Your task to perform on an android device: uninstall "eBay: The shopping marketplace" Image 0: 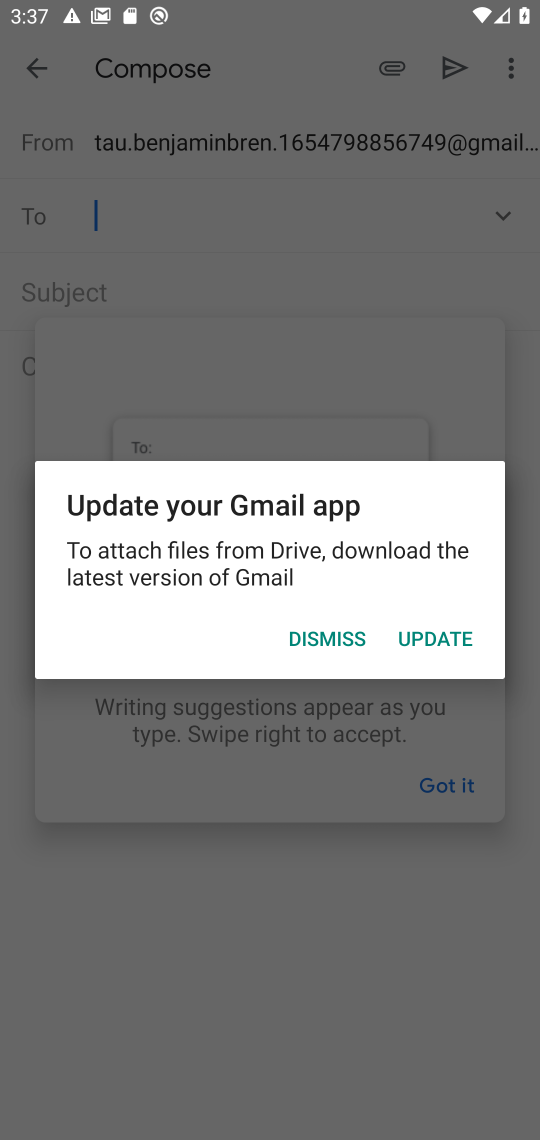
Step 0: press home button
Your task to perform on an android device: uninstall "eBay: The shopping marketplace" Image 1: 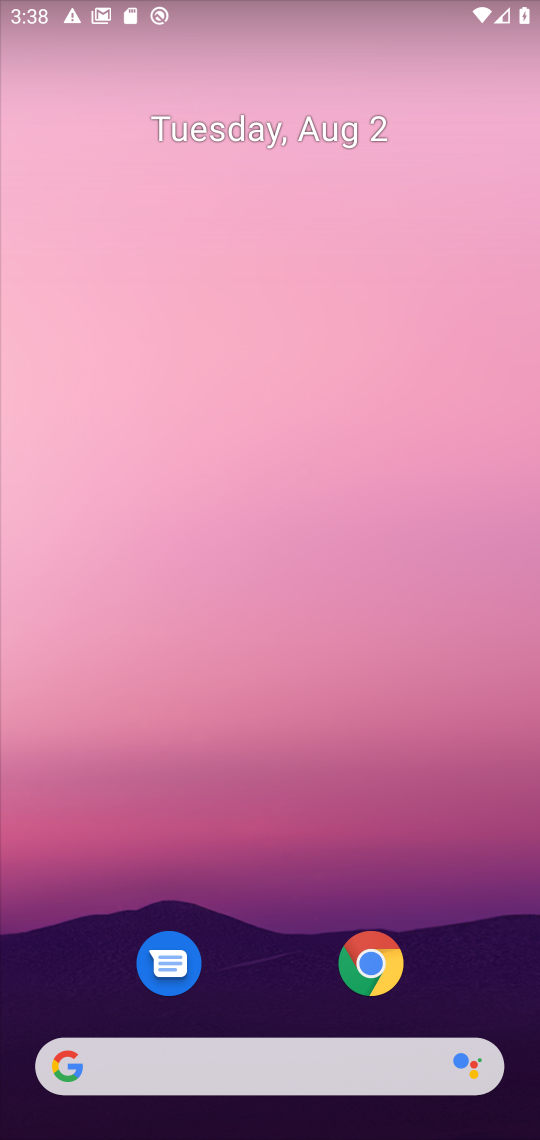
Step 1: drag from (180, 834) to (152, 158)
Your task to perform on an android device: uninstall "eBay: The shopping marketplace" Image 2: 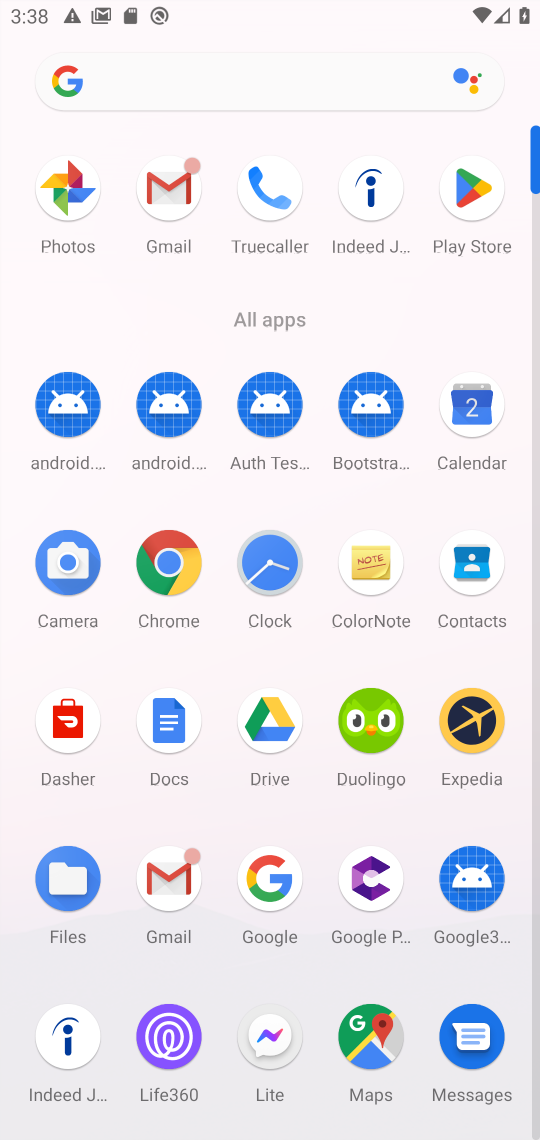
Step 2: click (450, 198)
Your task to perform on an android device: uninstall "eBay: The shopping marketplace" Image 3: 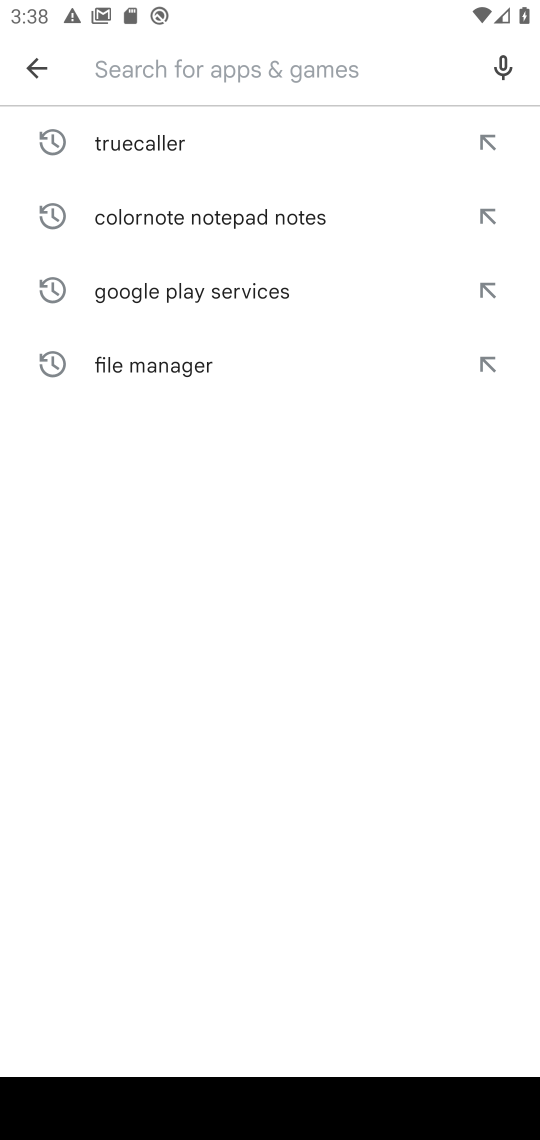
Step 3: type "eBay: The shopping marketplace"
Your task to perform on an android device: uninstall "eBay: The shopping marketplace" Image 4: 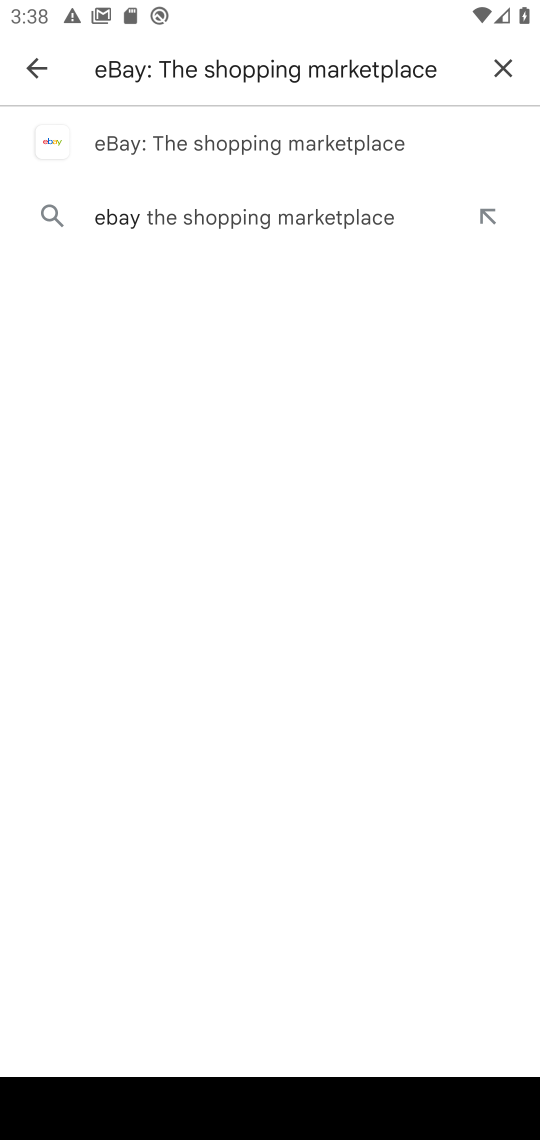
Step 4: click (144, 150)
Your task to perform on an android device: uninstall "eBay: The shopping marketplace" Image 5: 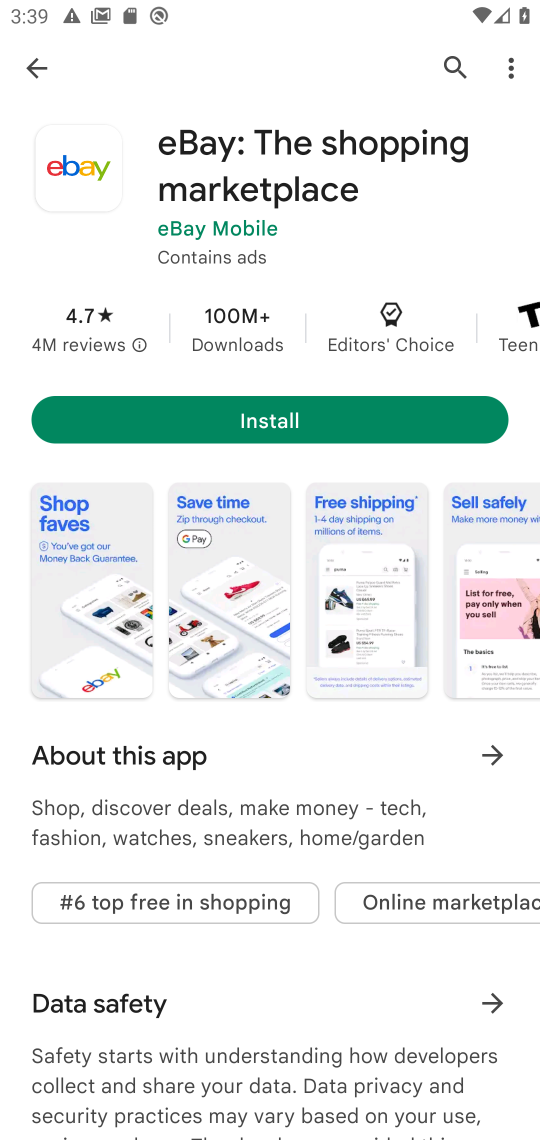
Step 5: task complete